Your task to perform on an android device: show emergency info Image 0: 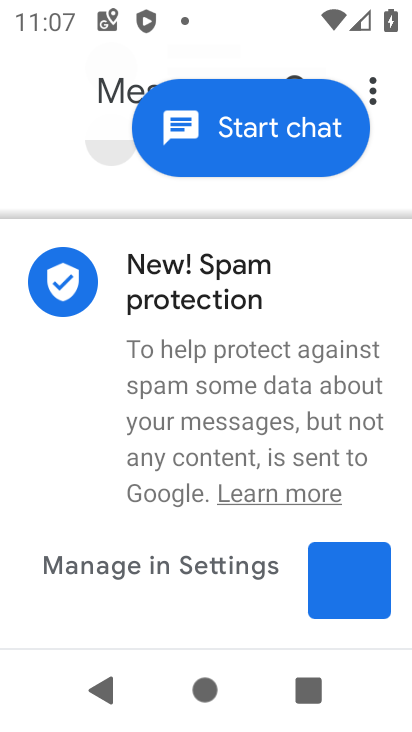
Step 0: press home button
Your task to perform on an android device: show emergency info Image 1: 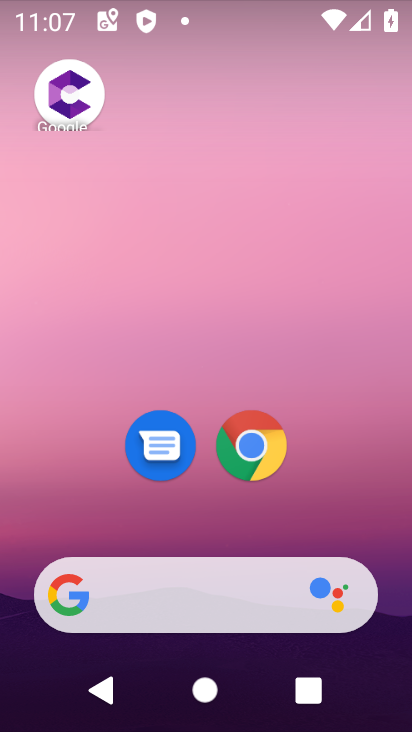
Step 1: drag from (205, 520) to (262, 67)
Your task to perform on an android device: show emergency info Image 2: 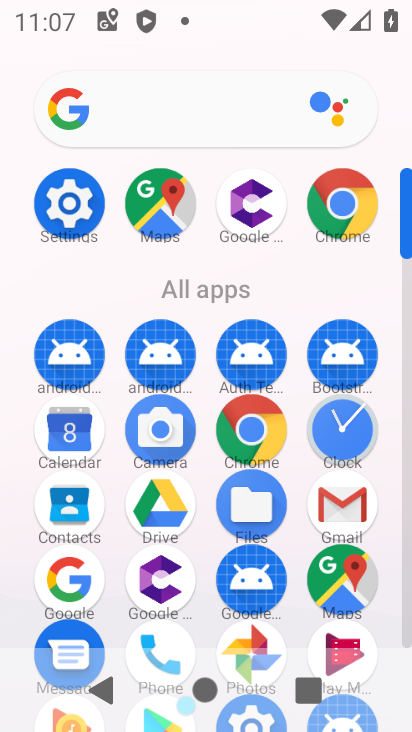
Step 2: drag from (206, 553) to (229, 155)
Your task to perform on an android device: show emergency info Image 3: 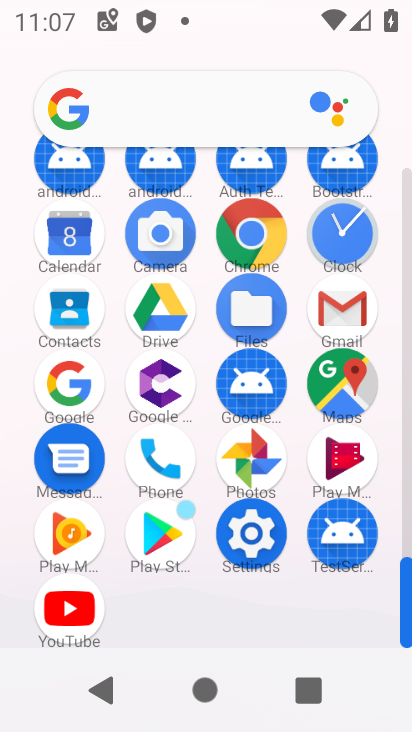
Step 3: click (257, 531)
Your task to perform on an android device: show emergency info Image 4: 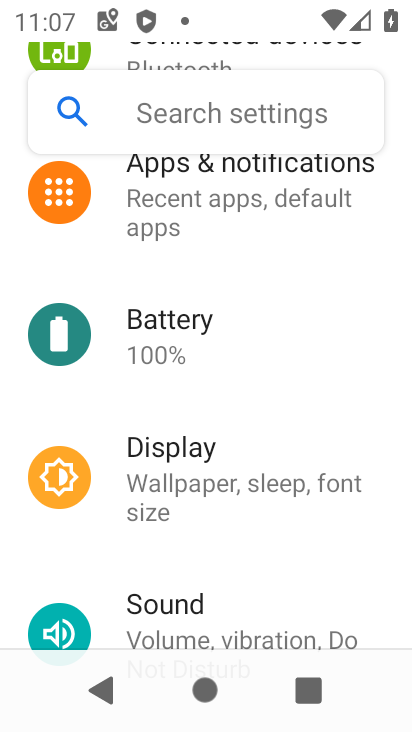
Step 4: drag from (221, 615) to (267, 157)
Your task to perform on an android device: show emergency info Image 5: 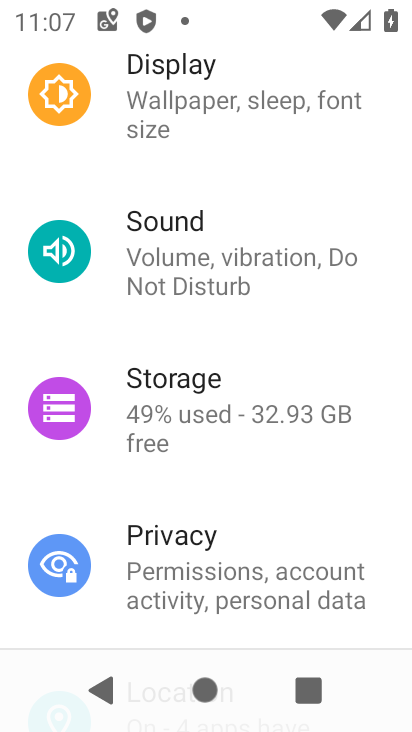
Step 5: drag from (207, 630) to (276, 191)
Your task to perform on an android device: show emergency info Image 6: 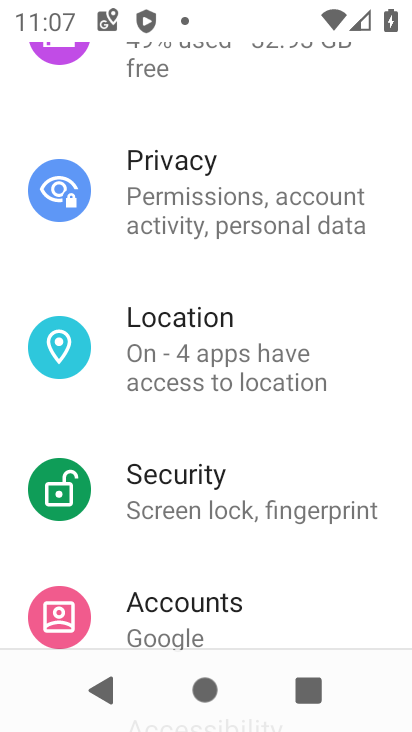
Step 6: drag from (248, 639) to (308, 7)
Your task to perform on an android device: show emergency info Image 7: 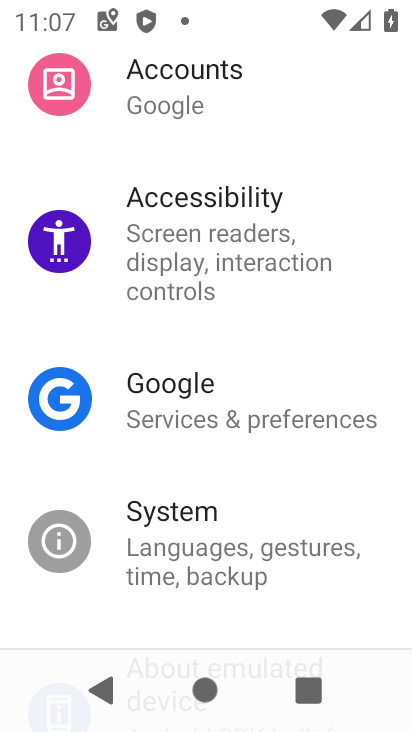
Step 7: drag from (215, 620) to (309, 117)
Your task to perform on an android device: show emergency info Image 8: 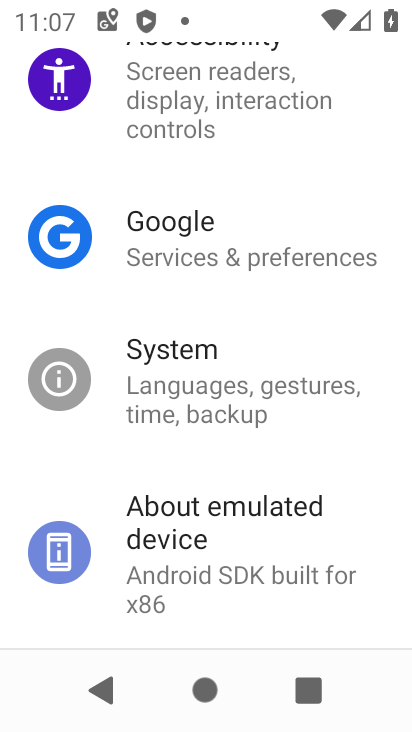
Step 8: click (230, 540)
Your task to perform on an android device: show emergency info Image 9: 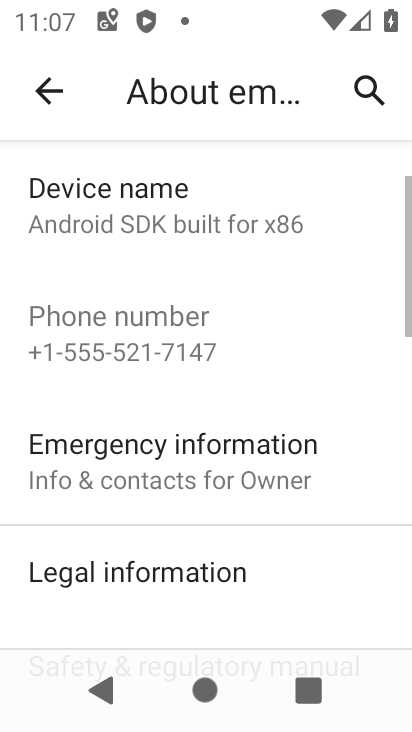
Step 9: click (220, 493)
Your task to perform on an android device: show emergency info Image 10: 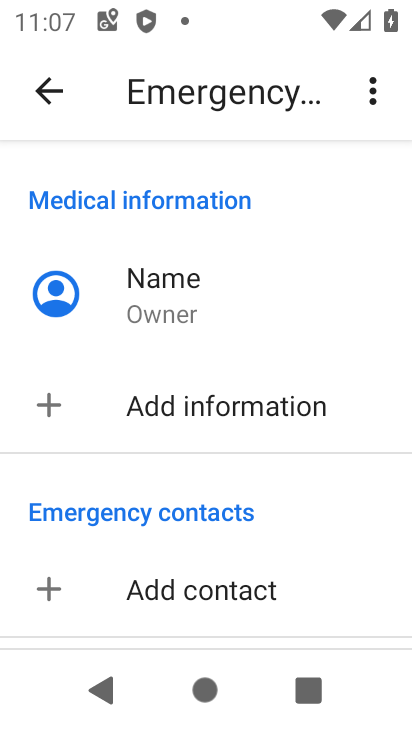
Step 10: task complete